Your task to perform on an android device: turn on wifi Image 0: 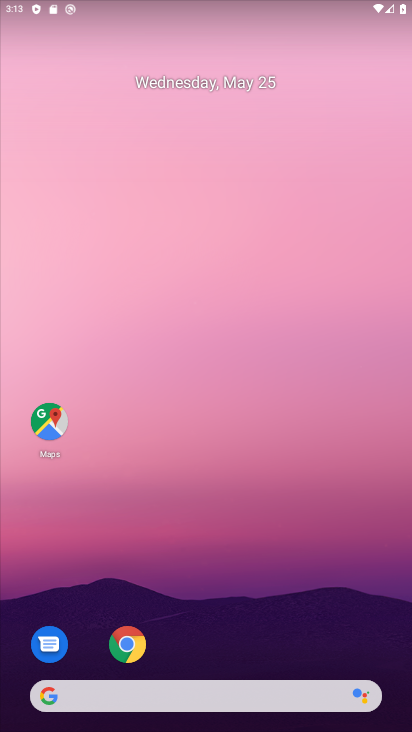
Step 0: drag from (304, 654) to (334, 23)
Your task to perform on an android device: turn on wifi Image 1: 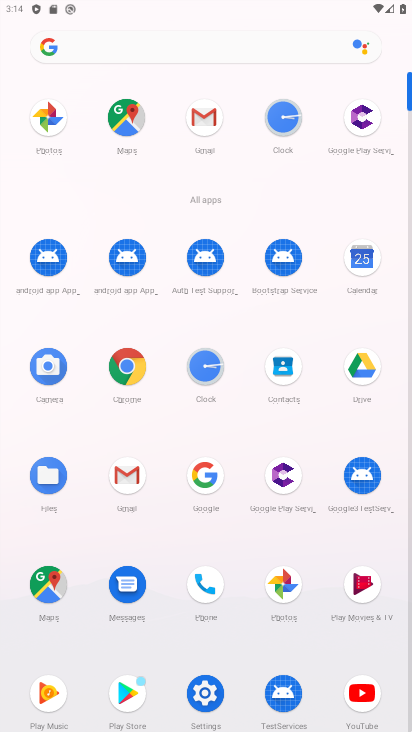
Step 1: click (199, 686)
Your task to perform on an android device: turn on wifi Image 2: 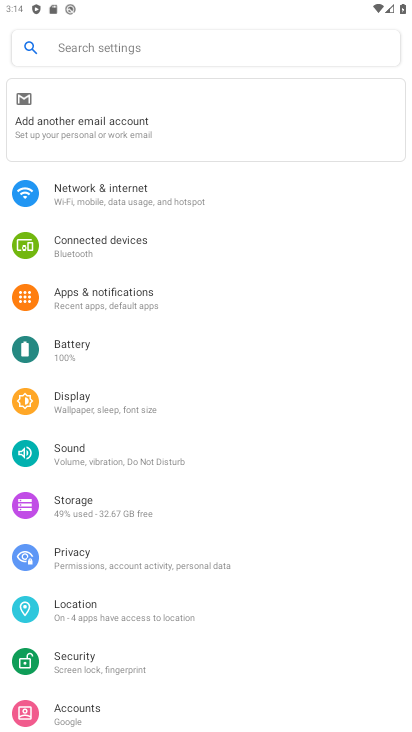
Step 2: click (104, 197)
Your task to perform on an android device: turn on wifi Image 3: 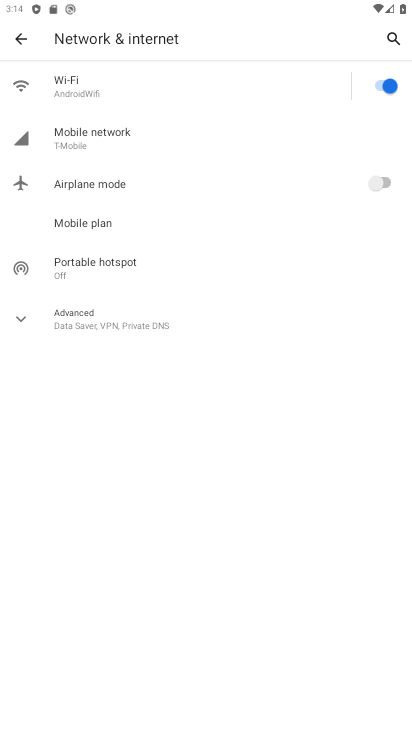
Step 3: task complete